Your task to perform on an android device: Open Yahoo.com Image 0: 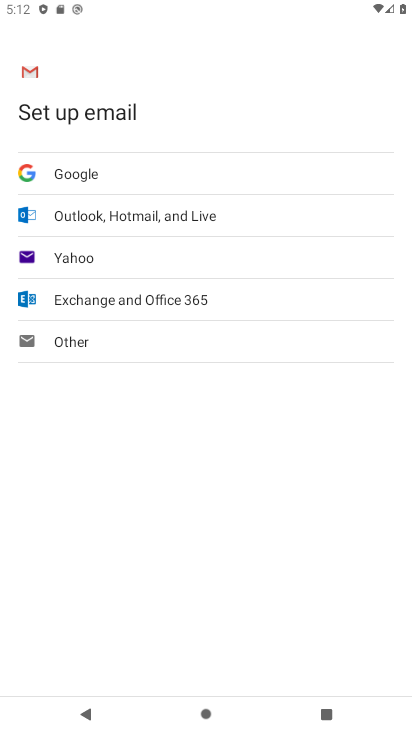
Step 0: press home button
Your task to perform on an android device: Open Yahoo.com Image 1: 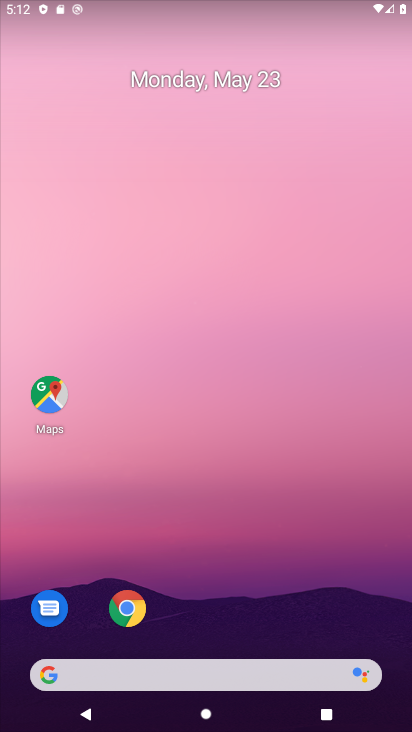
Step 1: click (129, 609)
Your task to perform on an android device: Open Yahoo.com Image 2: 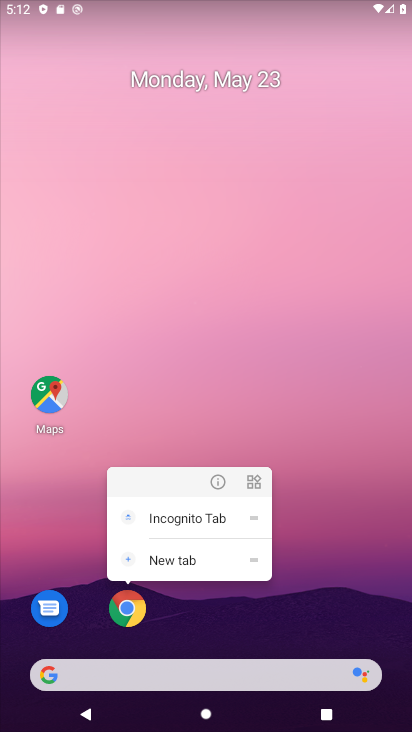
Step 2: click (130, 606)
Your task to perform on an android device: Open Yahoo.com Image 3: 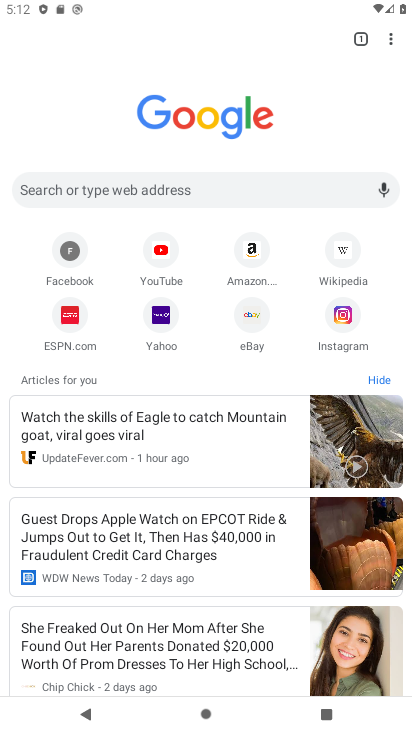
Step 3: click (147, 309)
Your task to perform on an android device: Open Yahoo.com Image 4: 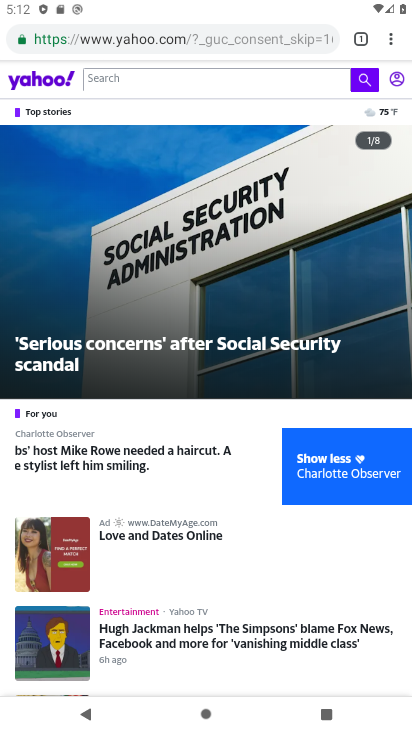
Step 4: task complete